Your task to perform on an android device: turn off smart reply in the gmail app Image 0: 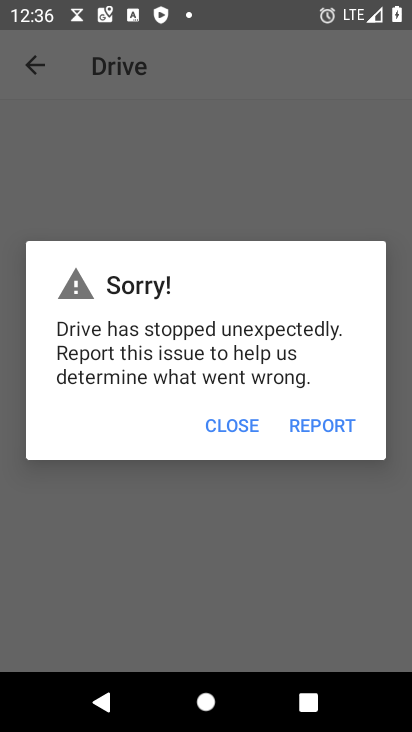
Step 0: press home button
Your task to perform on an android device: turn off smart reply in the gmail app Image 1: 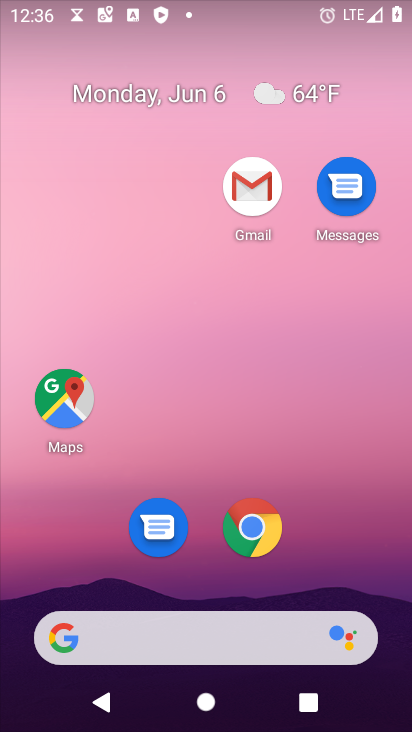
Step 1: click (255, 190)
Your task to perform on an android device: turn off smart reply in the gmail app Image 2: 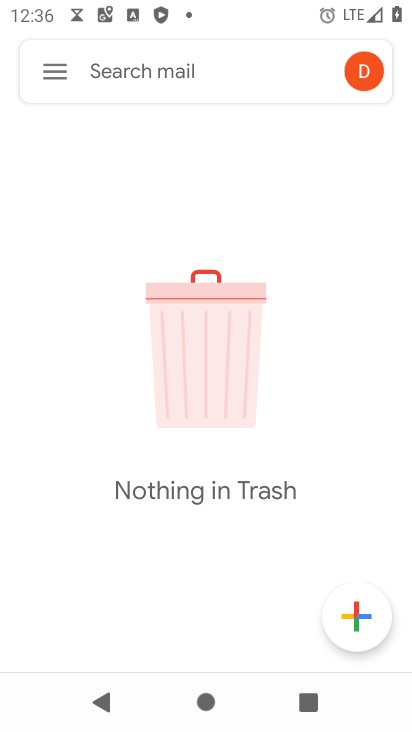
Step 2: click (63, 77)
Your task to perform on an android device: turn off smart reply in the gmail app Image 3: 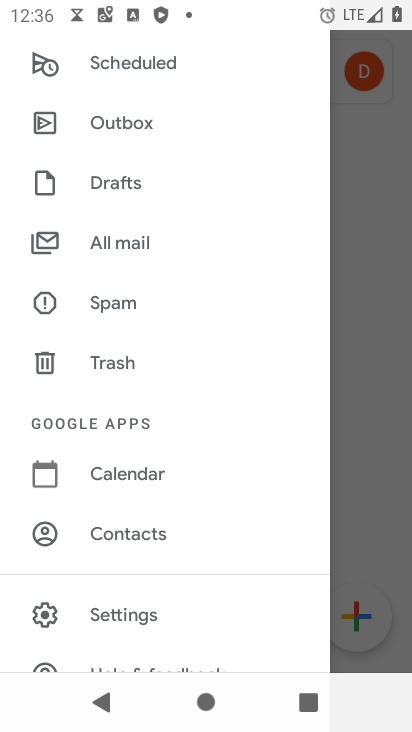
Step 3: click (121, 610)
Your task to perform on an android device: turn off smart reply in the gmail app Image 4: 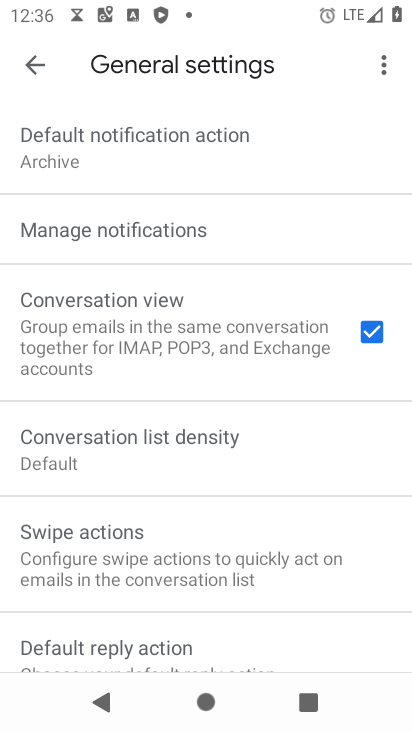
Step 4: click (34, 60)
Your task to perform on an android device: turn off smart reply in the gmail app Image 5: 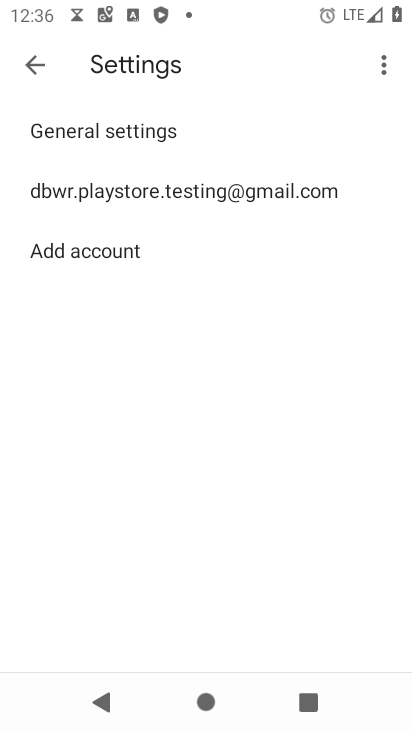
Step 5: click (187, 181)
Your task to perform on an android device: turn off smart reply in the gmail app Image 6: 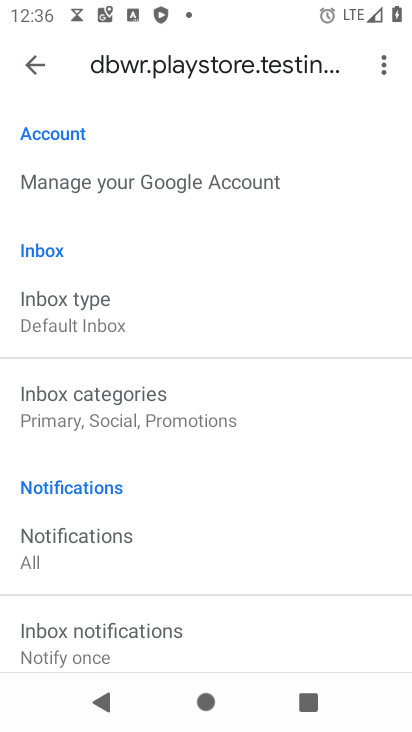
Step 6: drag from (272, 533) to (327, 1)
Your task to perform on an android device: turn off smart reply in the gmail app Image 7: 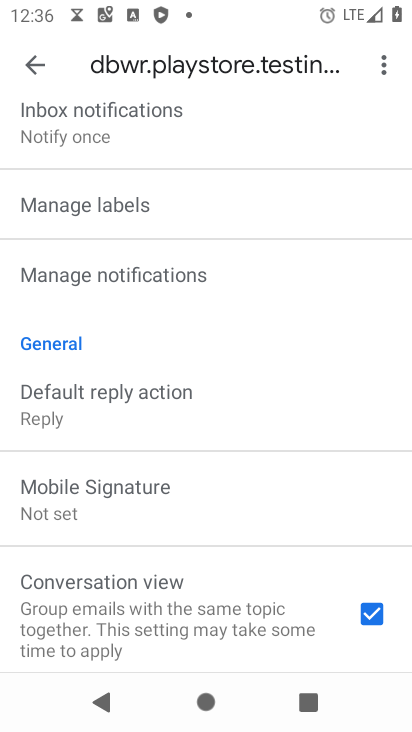
Step 7: drag from (209, 541) to (254, 126)
Your task to perform on an android device: turn off smart reply in the gmail app Image 8: 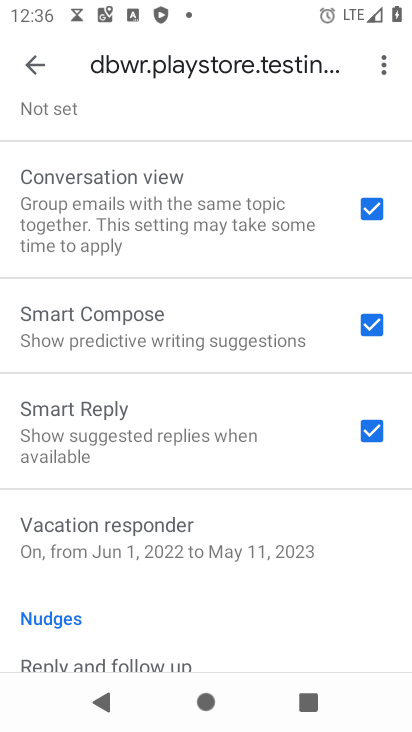
Step 8: click (368, 429)
Your task to perform on an android device: turn off smart reply in the gmail app Image 9: 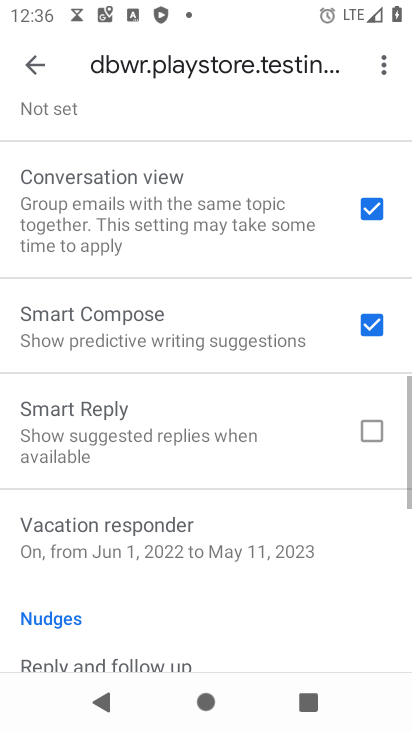
Step 9: task complete